Your task to perform on an android device: What's the weather going to be this weekend? Image 0: 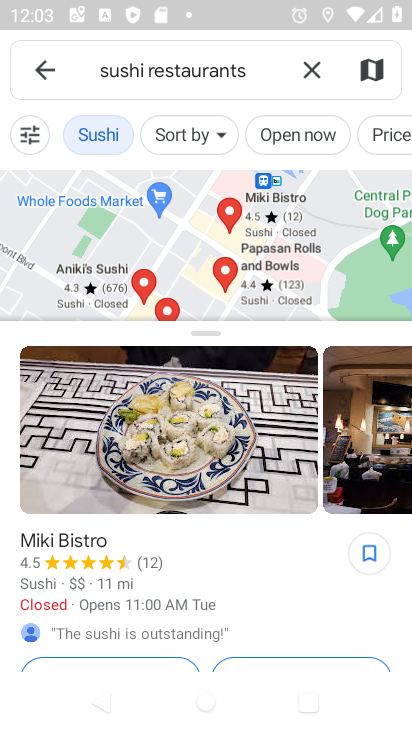
Step 0: press home button
Your task to perform on an android device: What's the weather going to be this weekend? Image 1: 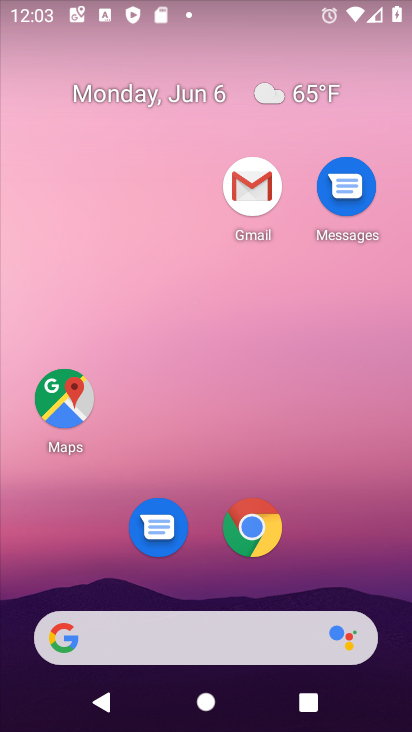
Step 1: click (288, 87)
Your task to perform on an android device: What's the weather going to be this weekend? Image 2: 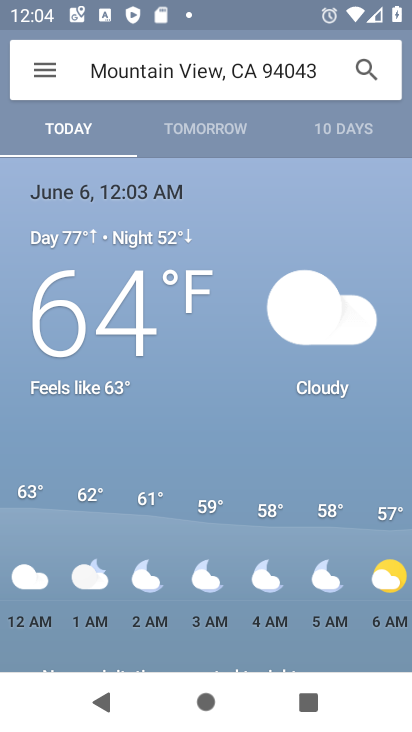
Step 2: click (347, 139)
Your task to perform on an android device: What's the weather going to be this weekend? Image 3: 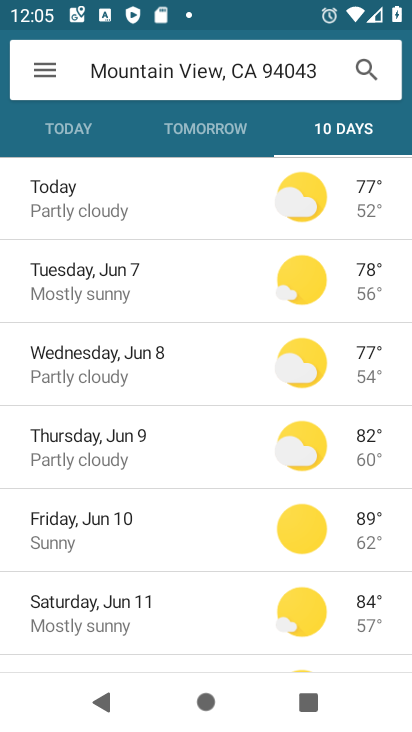
Step 3: task complete